Your task to perform on an android device: Go to privacy settings Image 0: 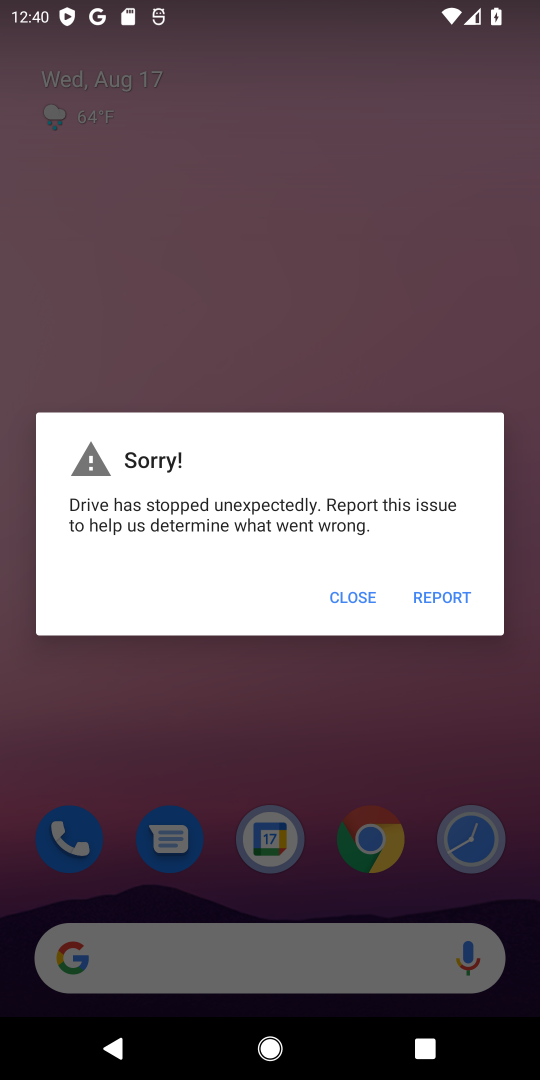
Step 0: press home button
Your task to perform on an android device: Go to privacy settings Image 1: 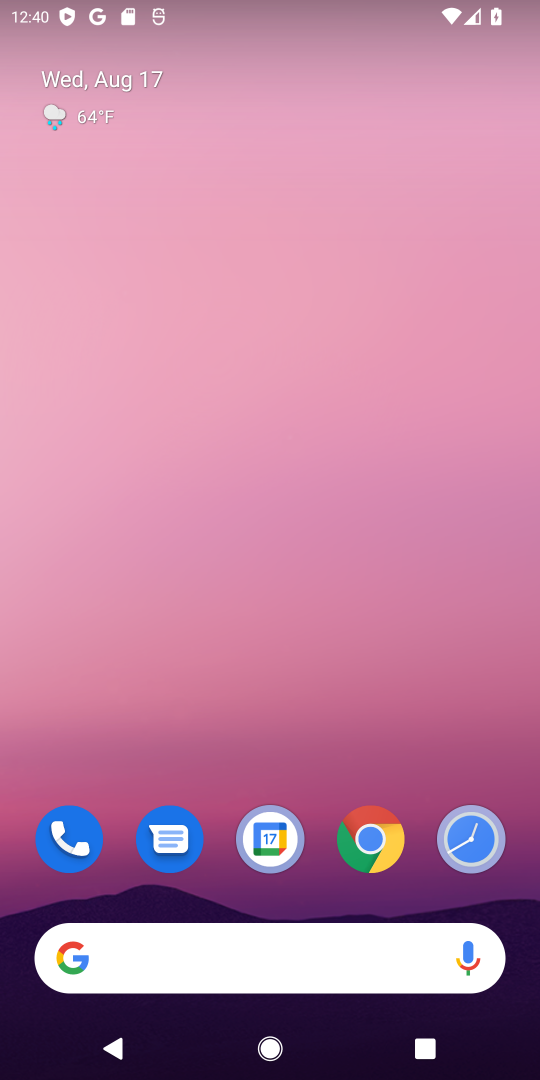
Step 1: drag from (237, 976) to (314, 257)
Your task to perform on an android device: Go to privacy settings Image 2: 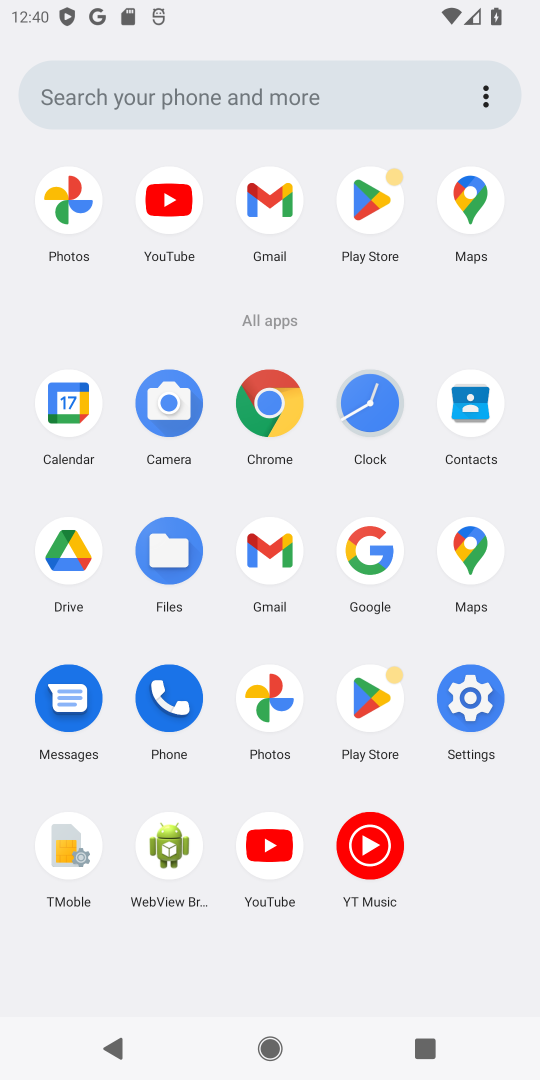
Step 2: click (475, 699)
Your task to perform on an android device: Go to privacy settings Image 3: 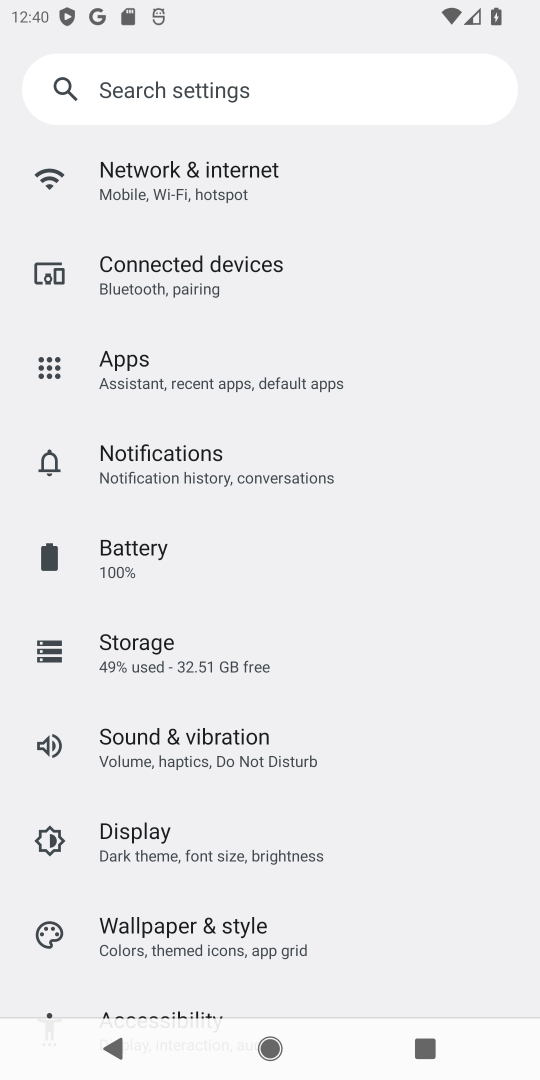
Step 3: drag from (197, 897) to (258, 789)
Your task to perform on an android device: Go to privacy settings Image 4: 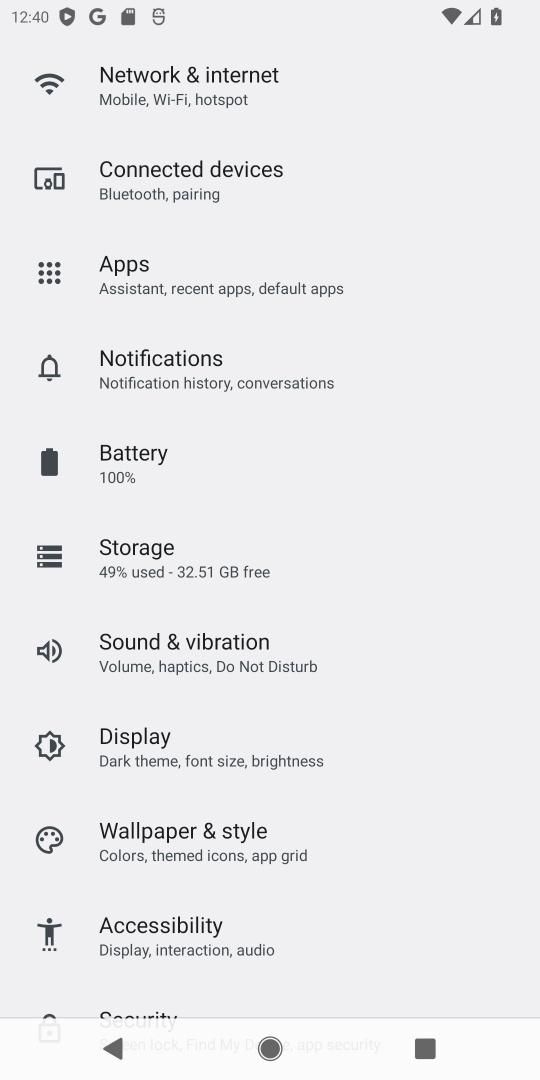
Step 4: drag from (198, 884) to (255, 732)
Your task to perform on an android device: Go to privacy settings Image 5: 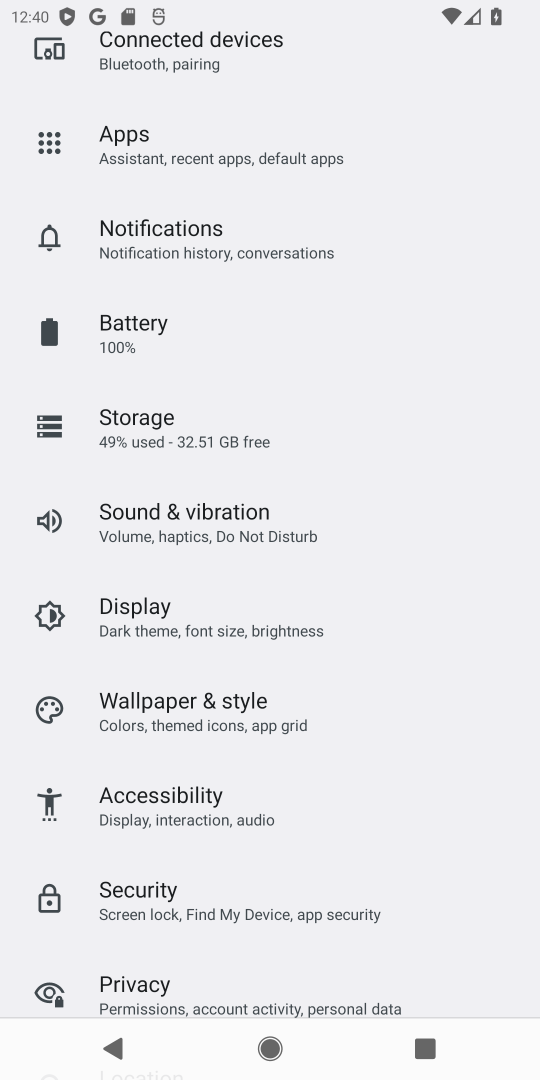
Step 5: drag from (234, 857) to (362, 710)
Your task to perform on an android device: Go to privacy settings Image 6: 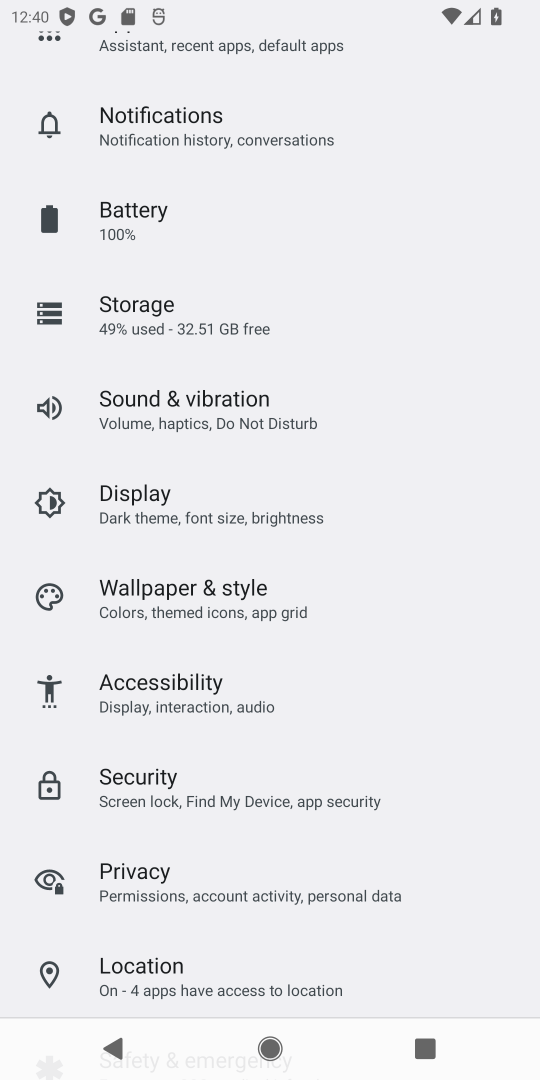
Step 6: click (150, 879)
Your task to perform on an android device: Go to privacy settings Image 7: 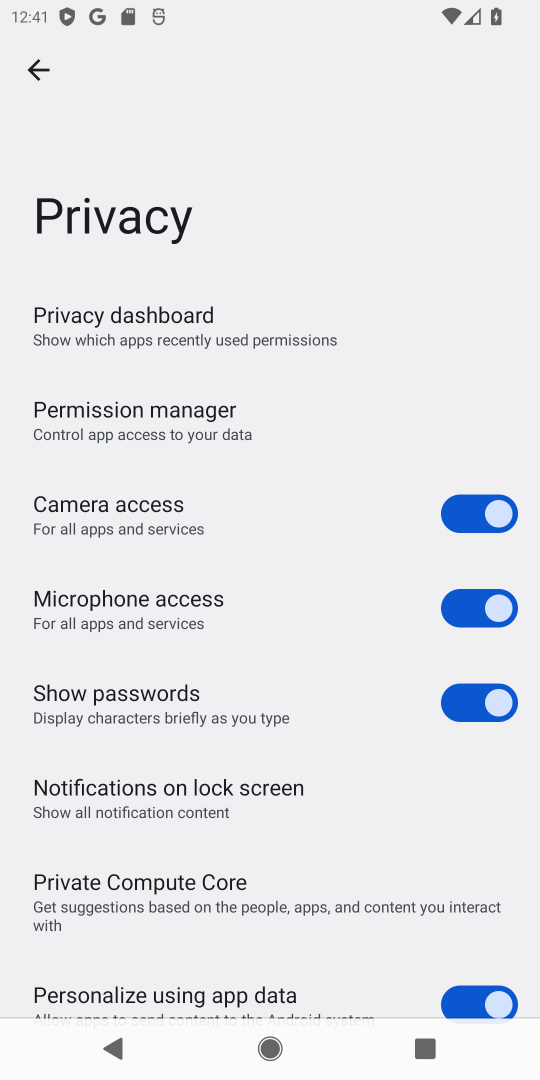
Step 7: task complete